Your task to perform on an android device: Go to display settings Image 0: 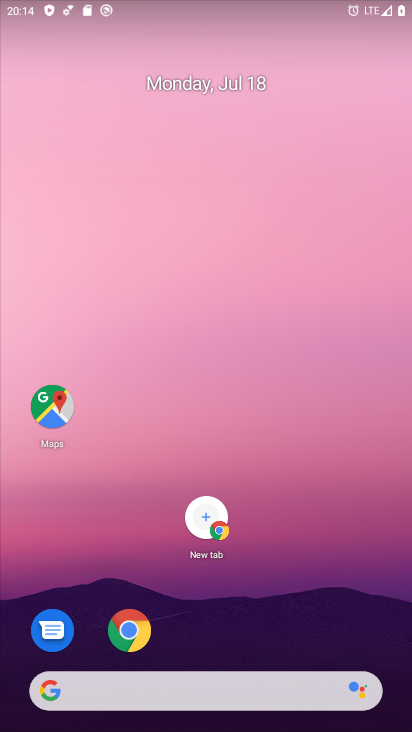
Step 0: drag from (220, 699) to (303, 194)
Your task to perform on an android device: Go to display settings Image 1: 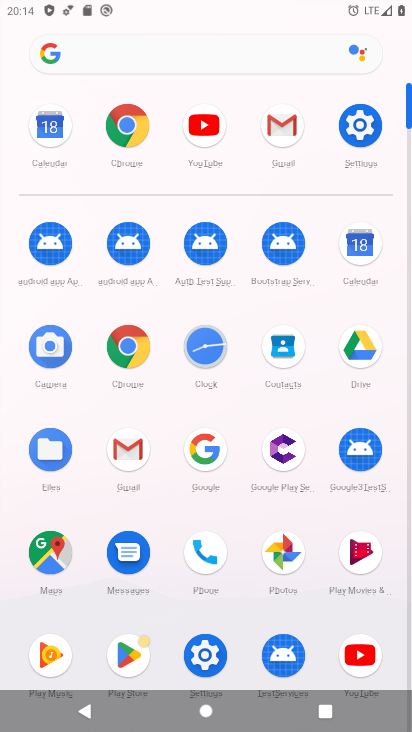
Step 1: click (364, 125)
Your task to perform on an android device: Go to display settings Image 2: 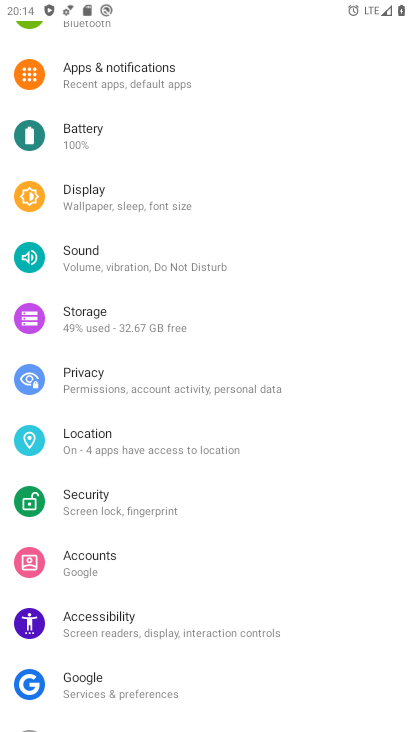
Step 2: click (151, 204)
Your task to perform on an android device: Go to display settings Image 3: 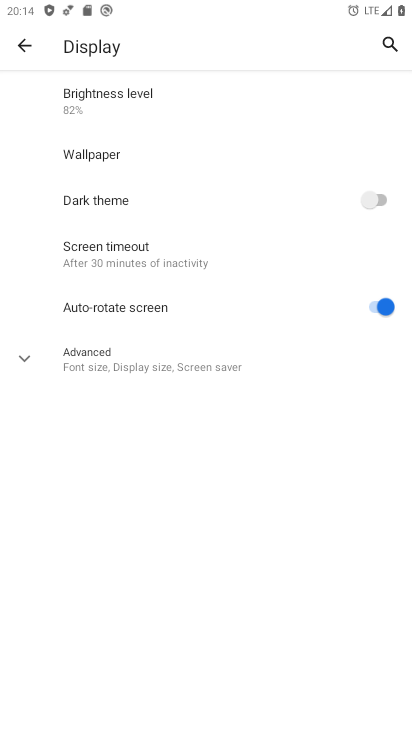
Step 3: click (148, 365)
Your task to perform on an android device: Go to display settings Image 4: 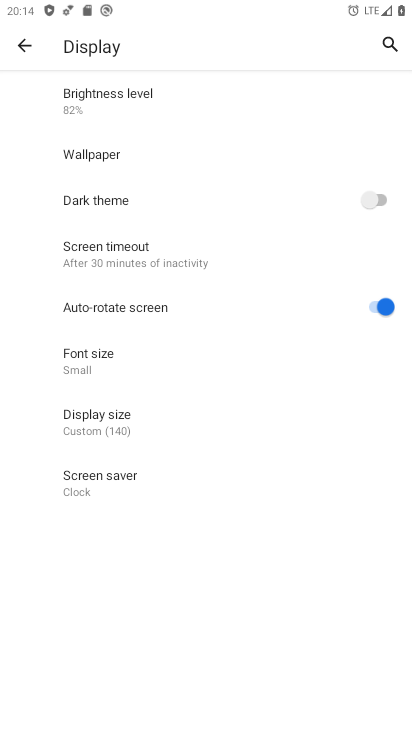
Step 4: task complete